Your task to perform on an android device: toggle pop-ups in chrome Image 0: 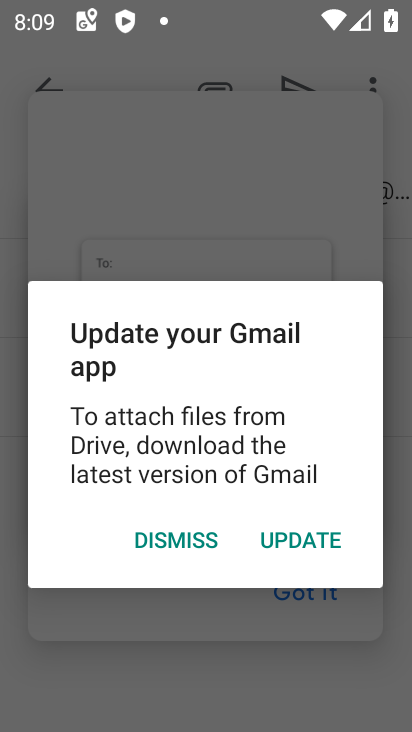
Step 0: press home button
Your task to perform on an android device: toggle pop-ups in chrome Image 1: 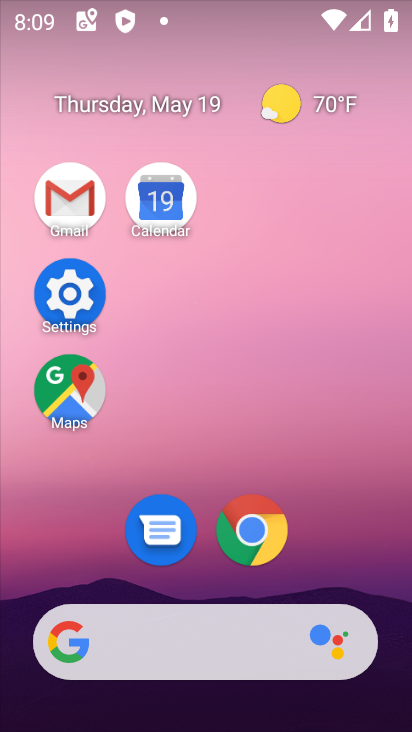
Step 1: click (270, 546)
Your task to perform on an android device: toggle pop-ups in chrome Image 2: 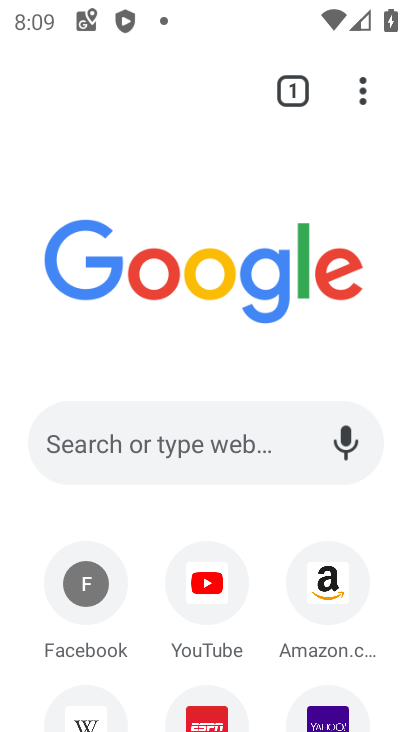
Step 2: click (371, 94)
Your task to perform on an android device: toggle pop-ups in chrome Image 3: 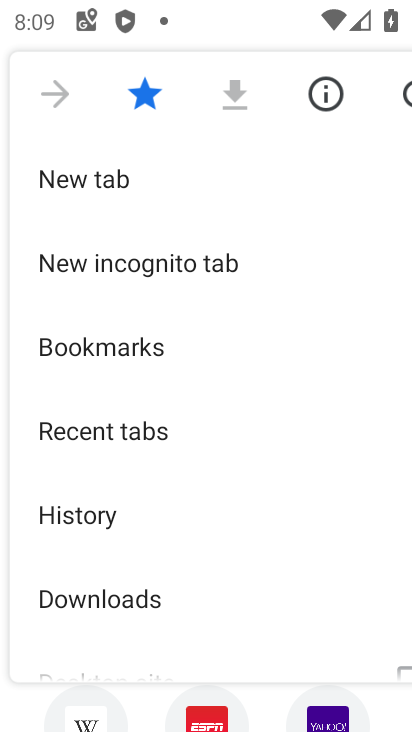
Step 3: drag from (233, 516) to (222, 110)
Your task to perform on an android device: toggle pop-ups in chrome Image 4: 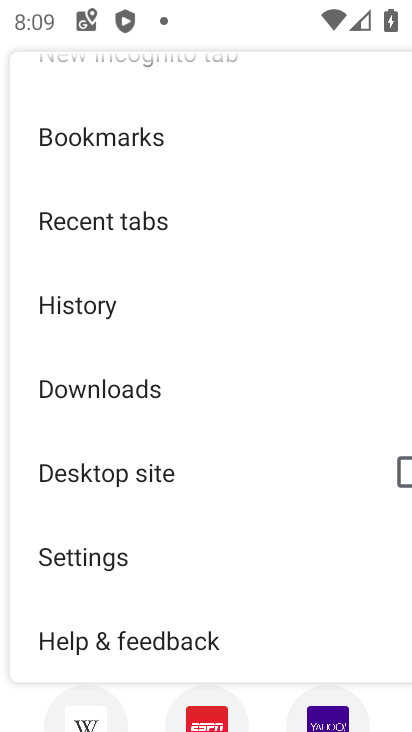
Step 4: click (201, 544)
Your task to perform on an android device: toggle pop-ups in chrome Image 5: 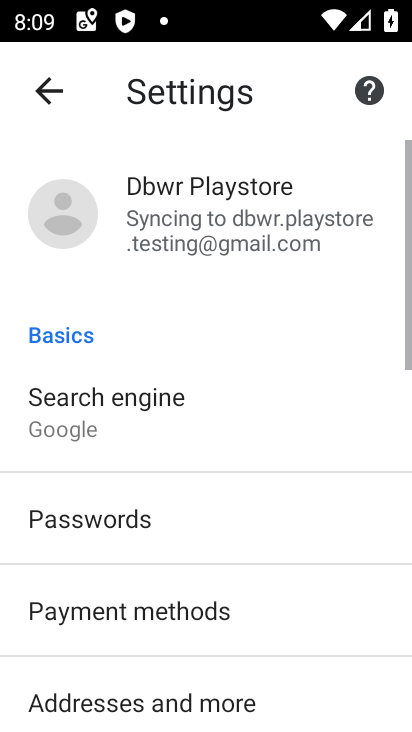
Step 5: drag from (201, 544) to (210, 82)
Your task to perform on an android device: toggle pop-ups in chrome Image 6: 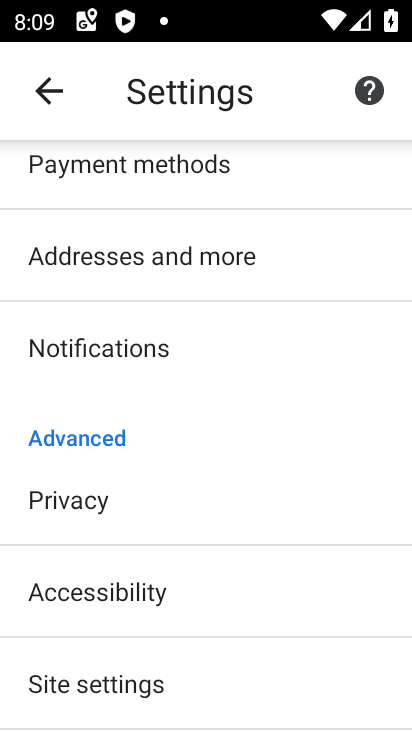
Step 6: drag from (191, 576) to (167, 172)
Your task to perform on an android device: toggle pop-ups in chrome Image 7: 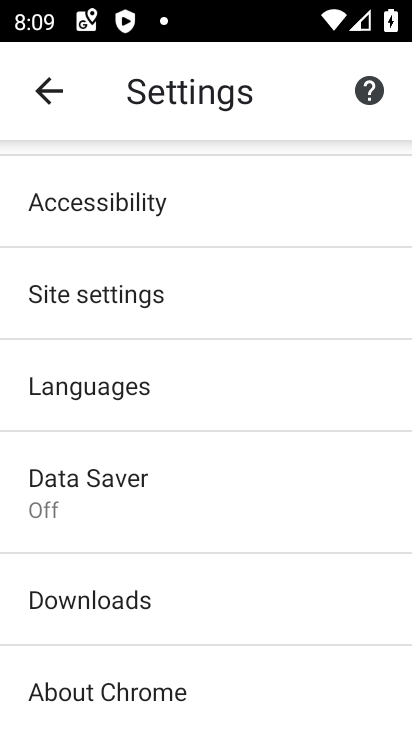
Step 7: click (178, 291)
Your task to perform on an android device: toggle pop-ups in chrome Image 8: 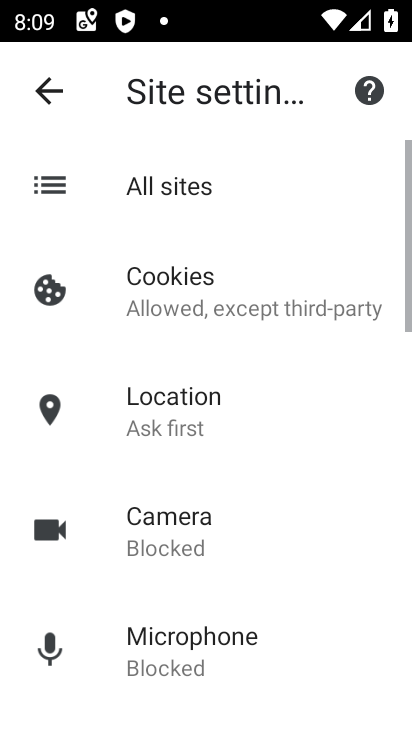
Step 8: drag from (242, 593) to (244, 181)
Your task to perform on an android device: toggle pop-ups in chrome Image 9: 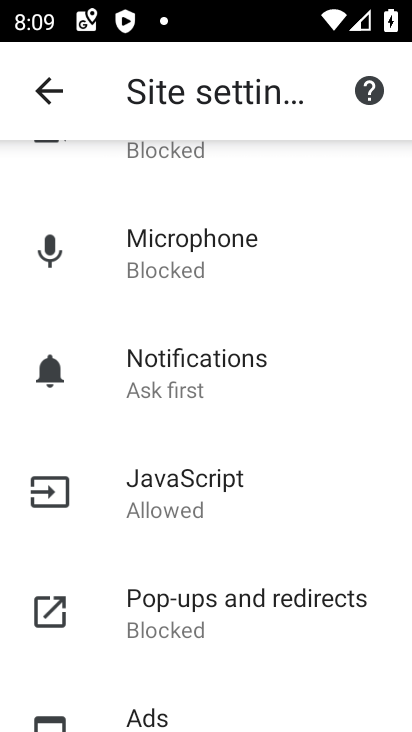
Step 9: drag from (291, 509) to (257, 172)
Your task to perform on an android device: toggle pop-ups in chrome Image 10: 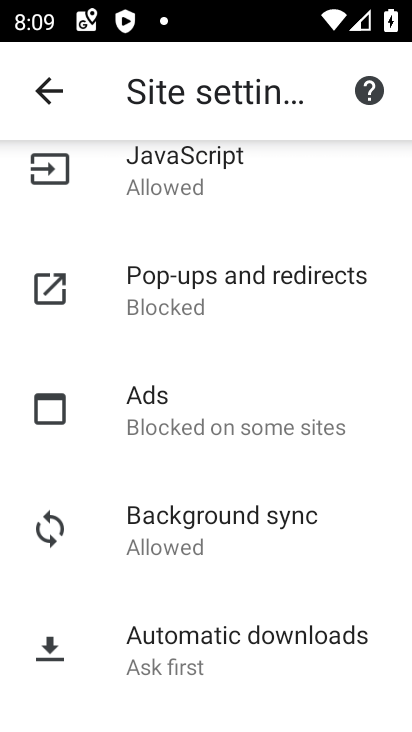
Step 10: click (263, 275)
Your task to perform on an android device: toggle pop-ups in chrome Image 11: 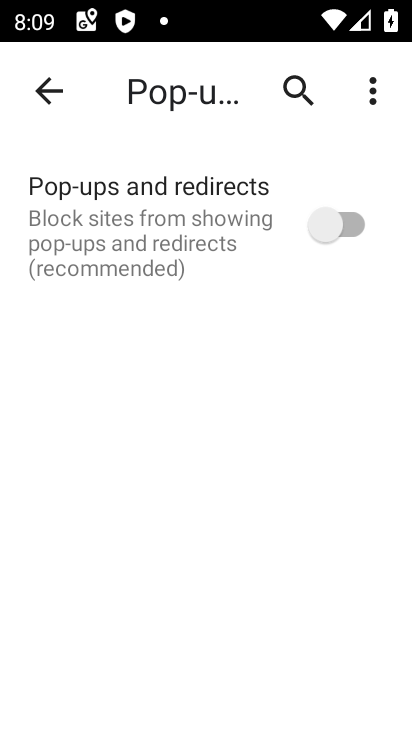
Step 11: click (357, 204)
Your task to perform on an android device: toggle pop-ups in chrome Image 12: 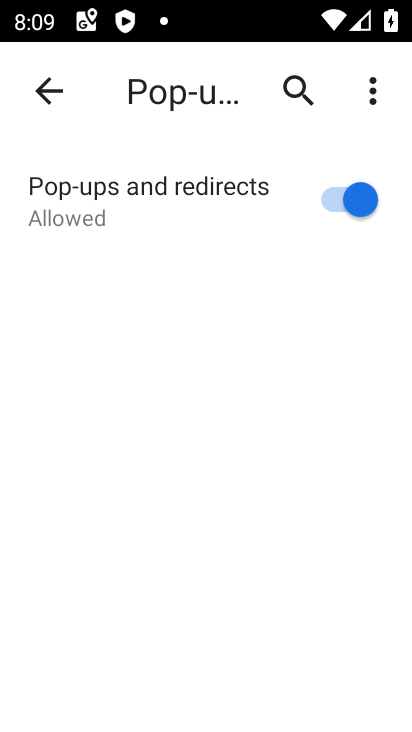
Step 12: task complete